Your task to perform on an android device: Go to Android settings Image 0: 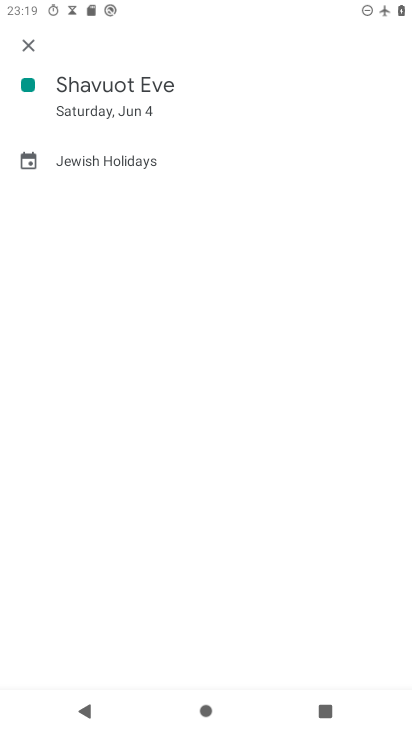
Step 0: press back button
Your task to perform on an android device: Go to Android settings Image 1: 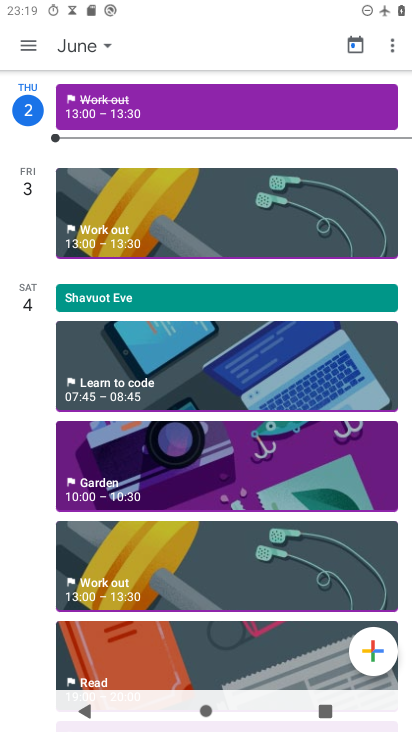
Step 1: press back button
Your task to perform on an android device: Go to Android settings Image 2: 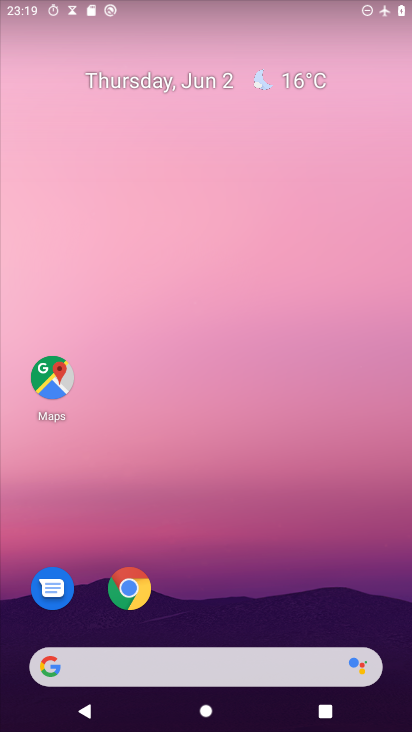
Step 2: drag from (252, 588) to (238, 92)
Your task to perform on an android device: Go to Android settings Image 3: 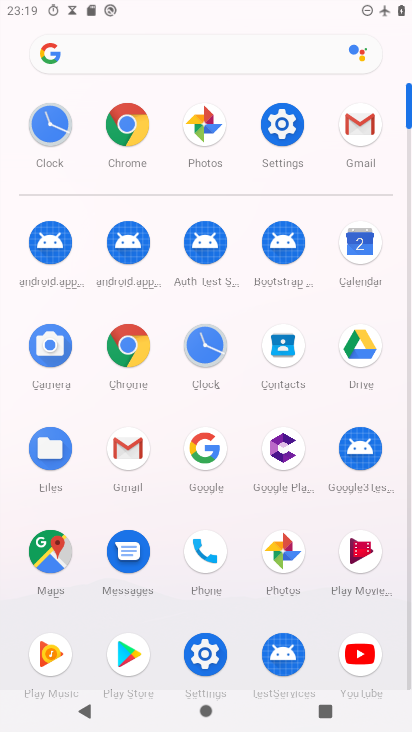
Step 3: click (286, 132)
Your task to perform on an android device: Go to Android settings Image 4: 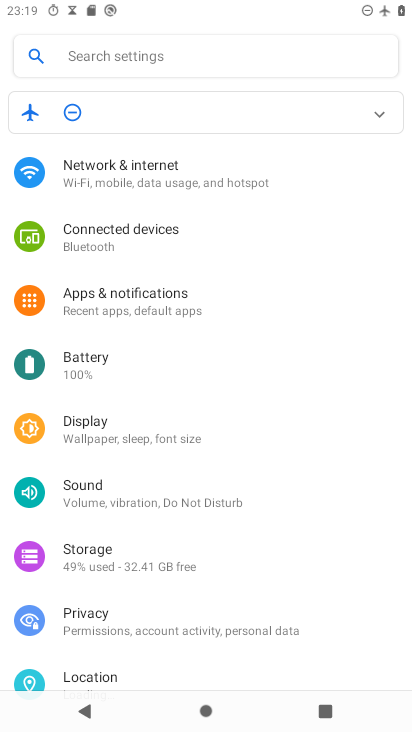
Step 4: drag from (133, 633) to (260, 132)
Your task to perform on an android device: Go to Android settings Image 5: 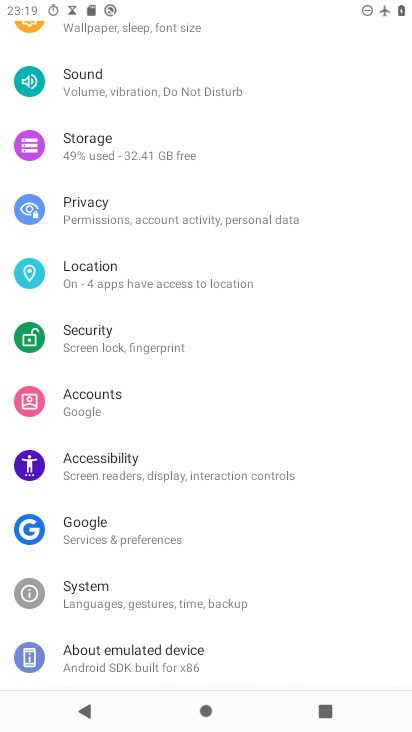
Step 5: drag from (161, 581) to (257, 73)
Your task to perform on an android device: Go to Android settings Image 6: 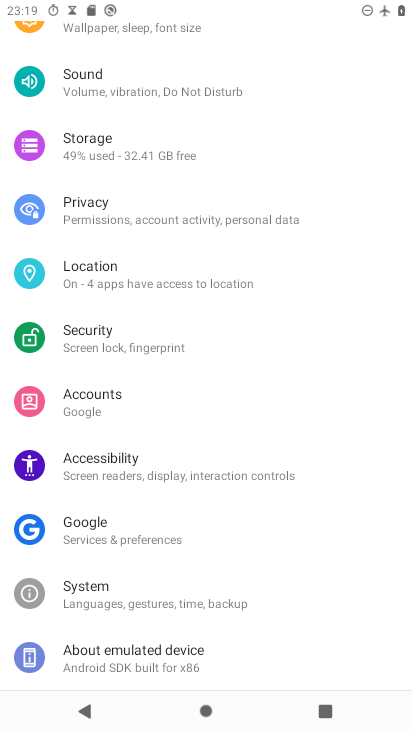
Step 6: click (144, 680)
Your task to perform on an android device: Go to Android settings Image 7: 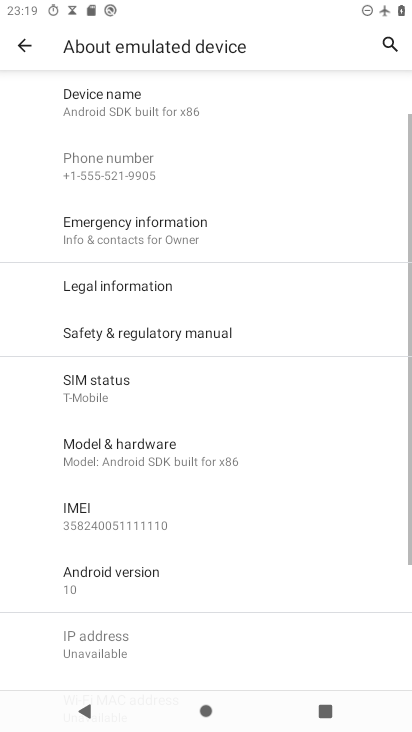
Step 7: click (85, 582)
Your task to perform on an android device: Go to Android settings Image 8: 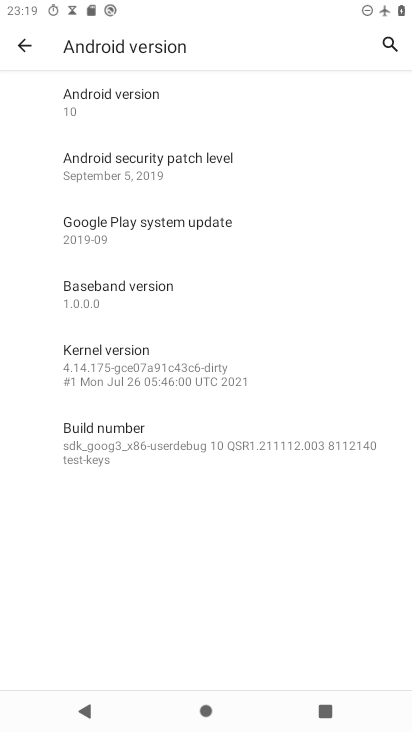
Step 8: task complete